Your task to perform on an android device: Clear all items from cart on bestbuy.com. Add "sony triple a" to the cart on bestbuy.com, then select checkout. Image 0: 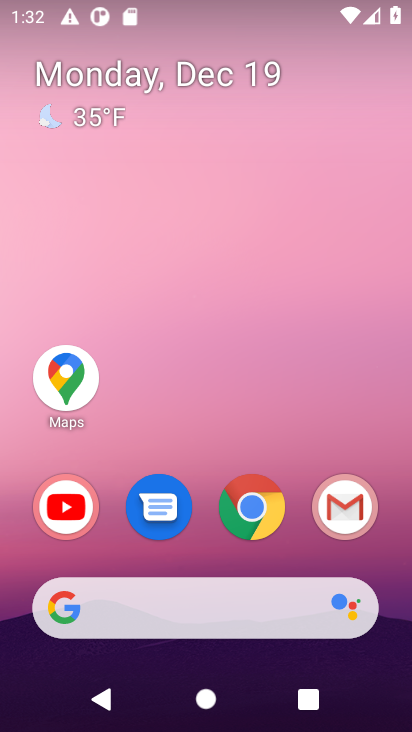
Step 0: click (249, 514)
Your task to perform on an android device: Clear all items from cart on bestbuy.com. Add "sony triple a" to the cart on bestbuy.com, then select checkout. Image 1: 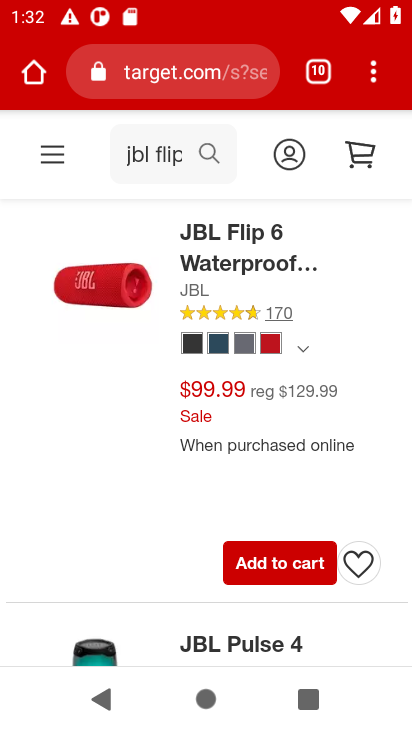
Step 1: click (158, 75)
Your task to perform on an android device: Clear all items from cart on bestbuy.com. Add "sony triple a" to the cart on bestbuy.com, then select checkout. Image 2: 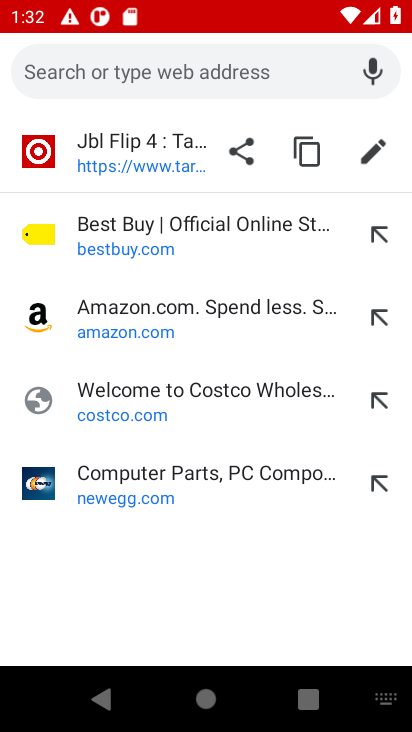
Step 2: click (92, 229)
Your task to perform on an android device: Clear all items from cart on bestbuy.com. Add "sony triple a" to the cart on bestbuy.com, then select checkout. Image 3: 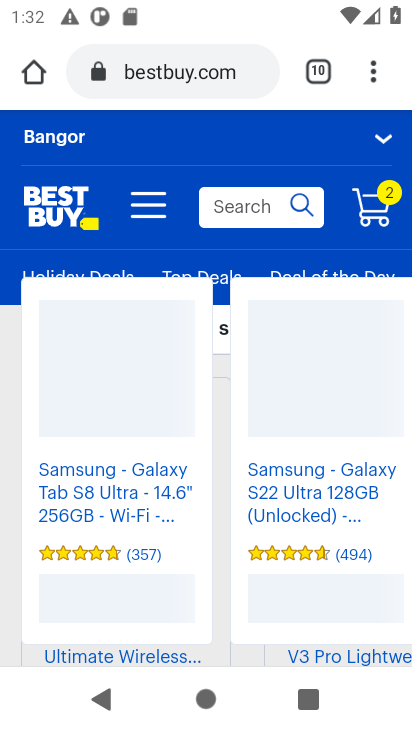
Step 3: click (375, 211)
Your task to perform on an android device: Clear all items from cart on bestbuy.com. Add "sony triple a" to the cart on bestbuy.com, then select checkout. Image 4: 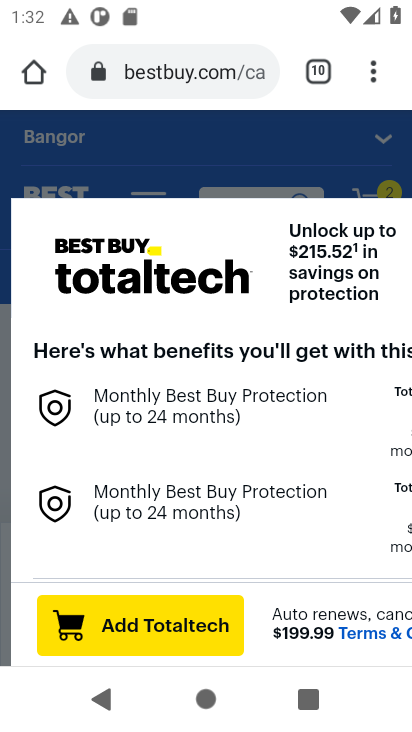
Step 4: click (291, 161)
Your task to perform on an android device: Clear all items from cart on bestbuy.com. Add "sony triple a" to the cart on bestbuy.com, then select checkout. Image 5: 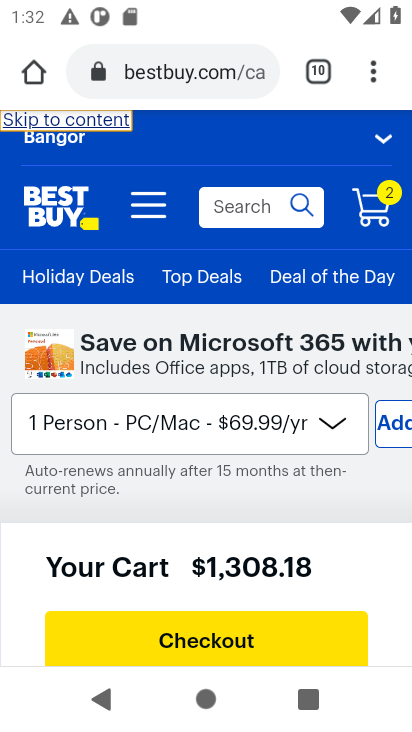
Step 5: drag from (240, 439) to (228, 137)
Your task to perform on an android device: Clear all items from cart on bestbuy.com. Add "sony triple a" to the cart on bestbuy.com, then select checkout. Image 6: 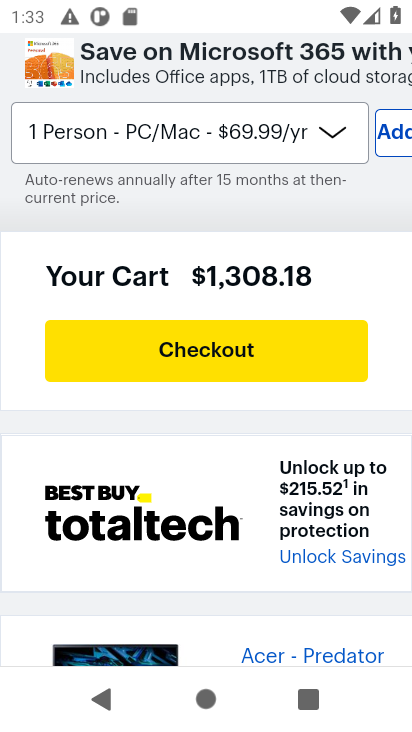
Step 6: drag from (227, 495) to (177, 115)
Your task to perform on an android device: Clear all items from cart on bestbuy.com. Add "sony triple a" to the cart on bestbuy.com, then select checkout. Image 7: 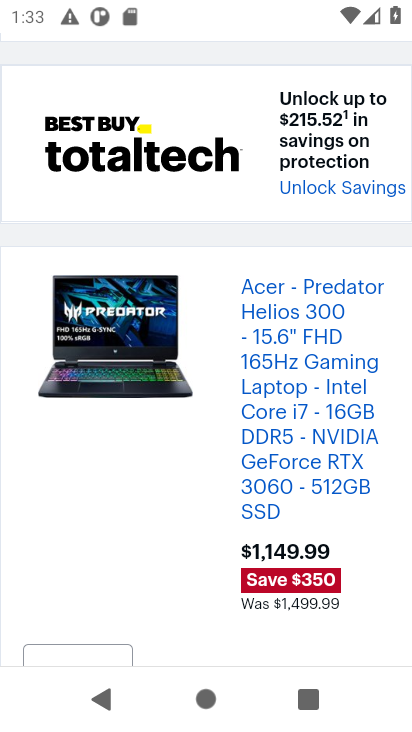
Step 7: drag from (165, 416) to (144, 130)
Your task to perform on an android device: Clear all items from cart on bestbuy.com. Add "sony triple a" to the cart on bestbuy.com, then select checkout. Image 8: 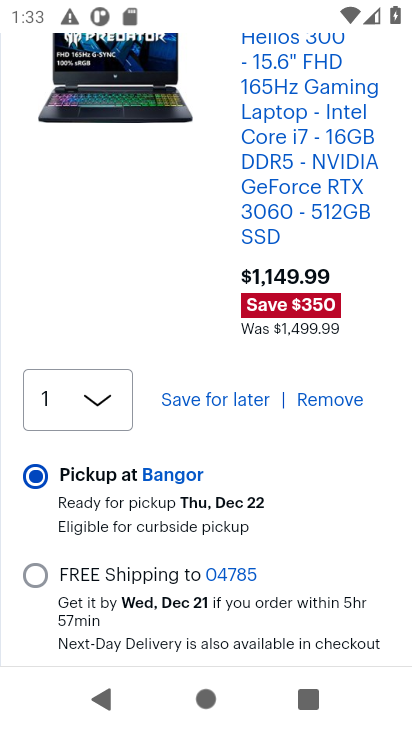
Step 8: click (338, 399)
Your task to perform on an android device: Clear all items from cart on bestbuy.com. Add "sony triple a" to the cart on bestbuy.com, then select checkout. Image 9: 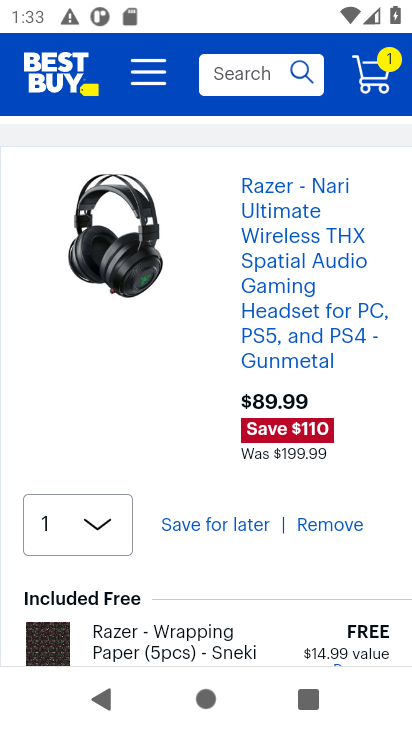
Step 9: click (322, 519)
Your task to perform on an android device: Clear all items from cart on bestbuy.com. Add "sony triple a" to the cart on bestbuy.com, then select checkout. Image 10: 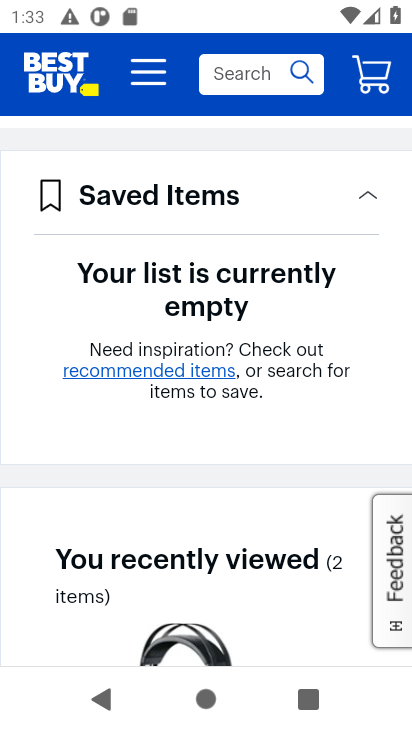
Step 10: click (238, 84)
Your task to perform on an android device: Clear all items from cart on bestbuy.com. Add "sony triple a" to the cart on bestbuy.com, then select checkout. Image 11: 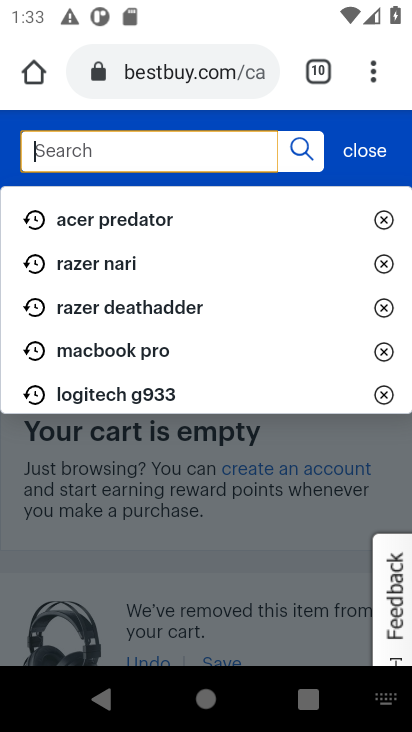
Step 11: type "sony triple a"
Your task to perform on an android device: Clear all items from cart on bestbuy.com. Add "sony triple a" to the cart on bestbuy.com, then select checkout. Image 12: 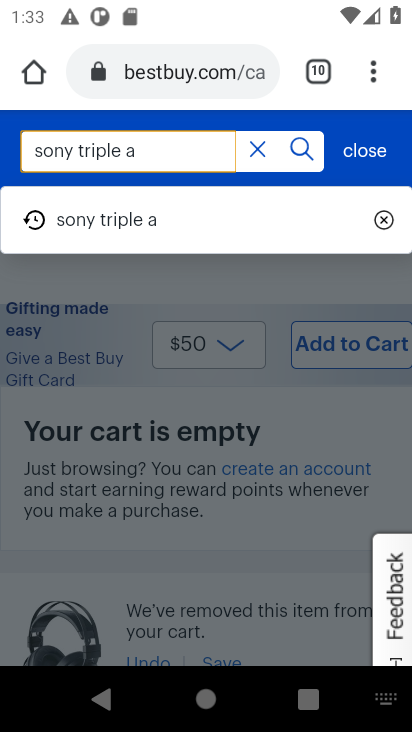
Step 12: click (103, 221)
Your task to perform on an android device: Clear all items from cart on bestbuy.com. Add "sony triple a" to the cart on bestbuy.com, then select checkout. Image 13: 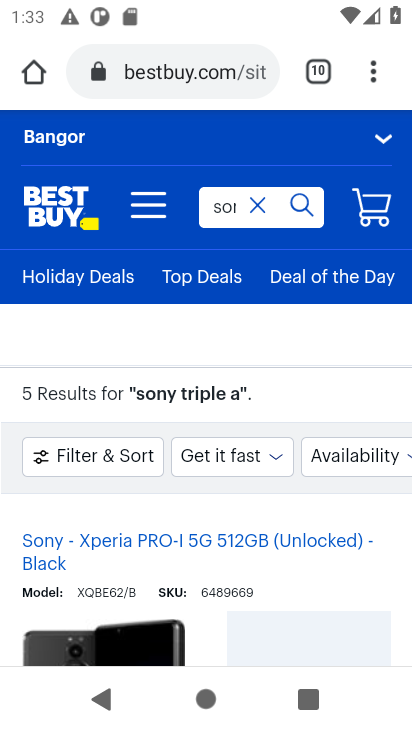
Step 13: task complete